Your task to perform on an android device: Open Google Chrome and open the bookmarks view Image 0: 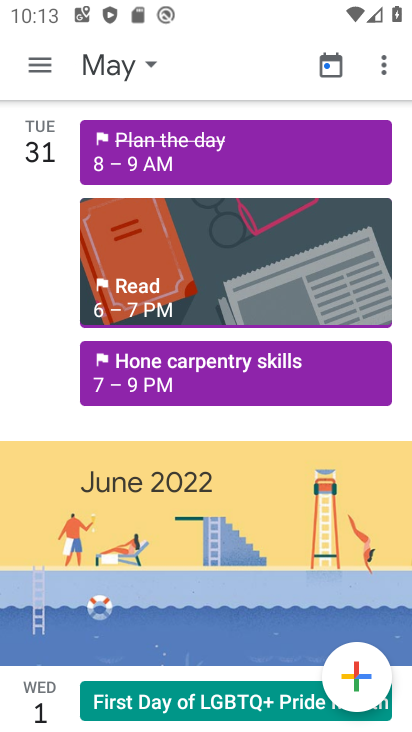
Step 0: press home button
Your task to perform on an android device: Open Google Chrome and open the bookmarks view Image 1: 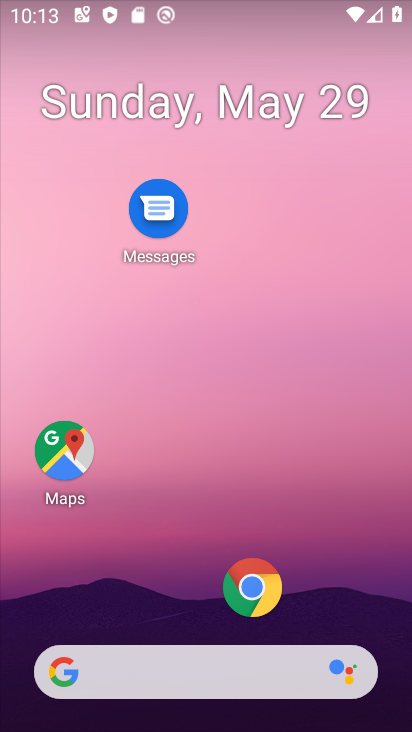
Step 1: click (258, 576)
Your task to perform on an android device: Open Google Chrome and open the bookmarks view Image 2: 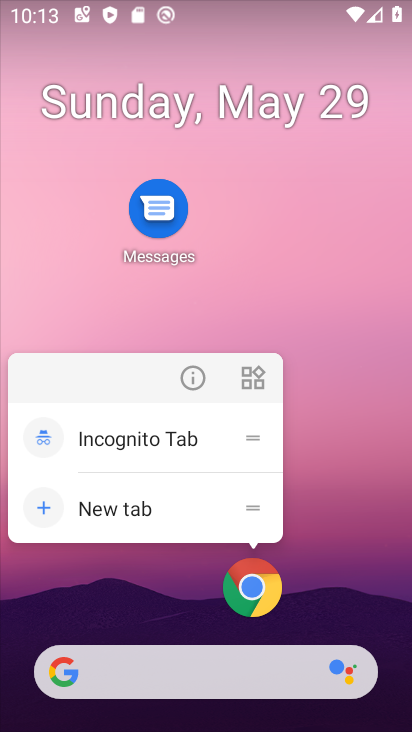
Step 2: click (250, 588)
Your task to perform on an android device: Open Google Chrome and open the bookmarks view Image 3: 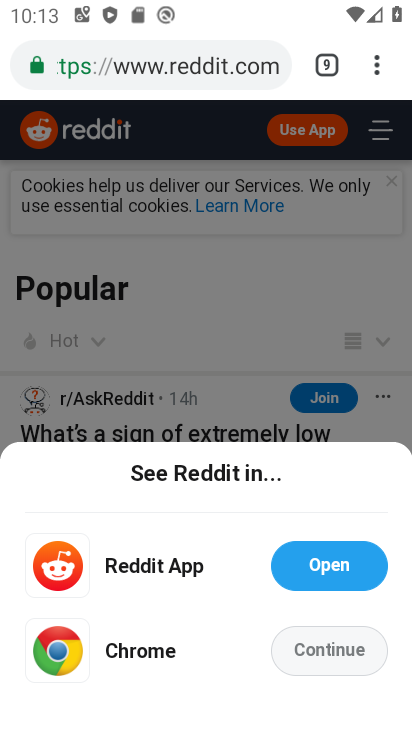
Step 3: task complete